Your task to perform on an android device: Open my contact list Image 0: 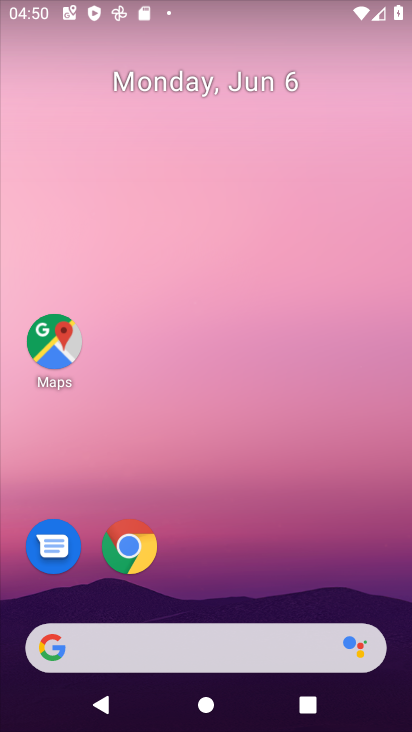
Step 0: drag from (282, 594) to (258, 231)
Your task to perform on an android device: Open my contact list Image 1: 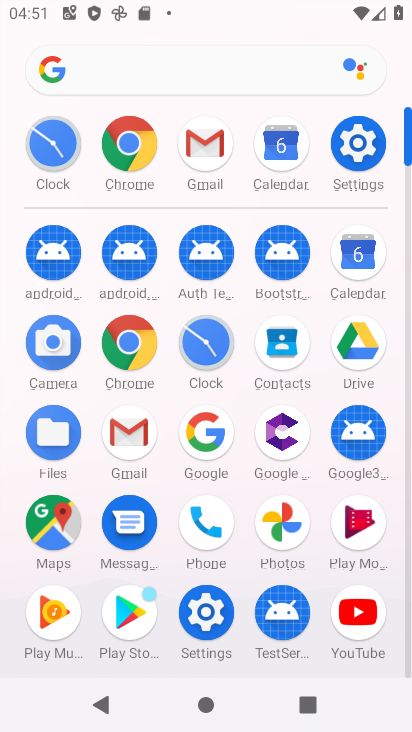
Step 1: click (292, 385)
Your task to perform on an android device: Open my contact list Image 2: 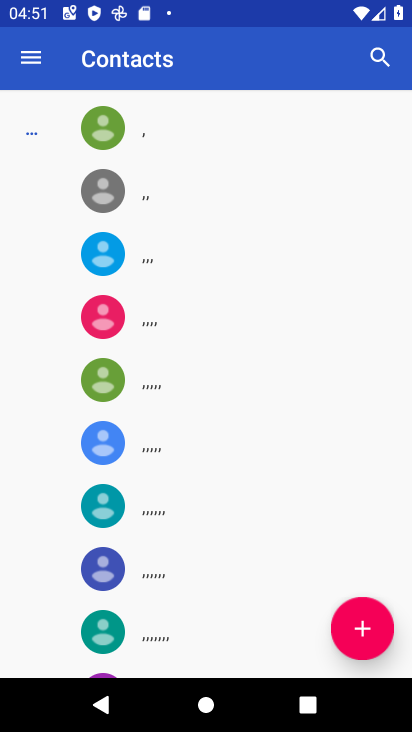
Step 2: task complete